Your task to perform on an android device: toggle data saver in the chrome app Image 0: 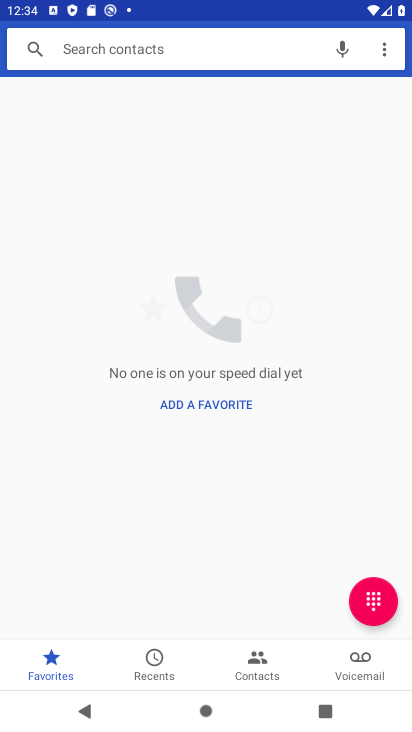
Step 0: press home button
Your task to perform on an android device: toggle data saver in the chrome app Image 1: 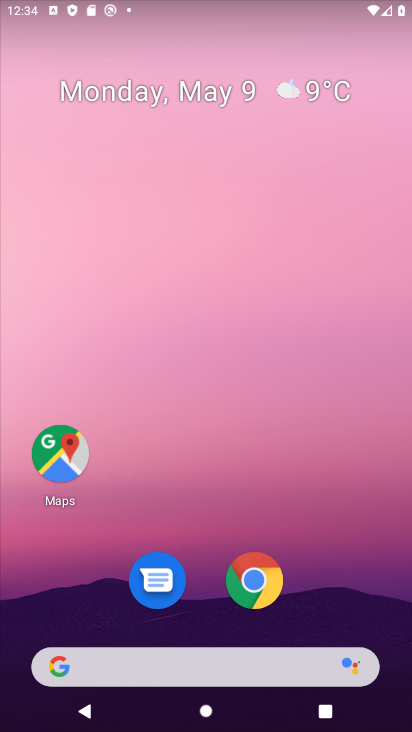
Step 1: click (272, 577)
Your task to perform on an android device: toggle data saver in the chrome app Image 2: 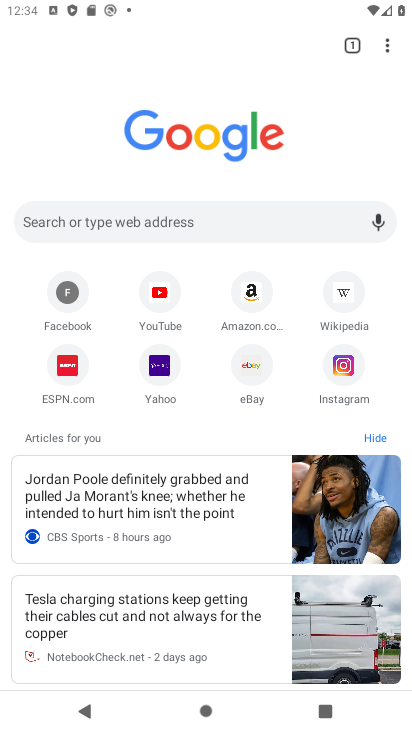
Step 2: click (385, 39)
Your task to perform on an android device: toggle data saver in the chrome app Image 3: 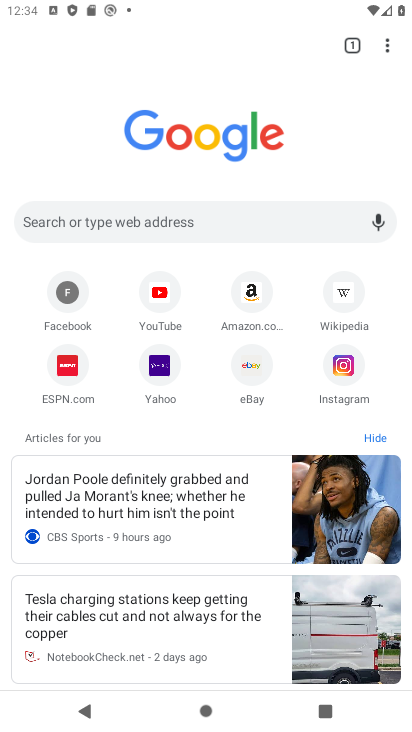
Step 3: click (391, 34)
Your task to perform on an android device: toggle data saver in the chrome app Image 4: 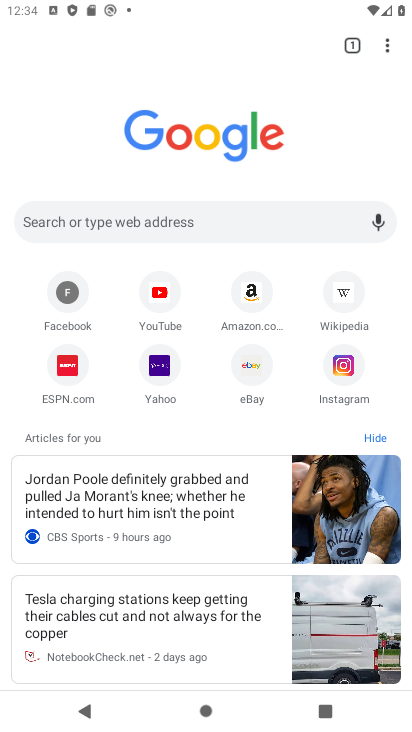
Step 4: click (392, 41)
Your task to perform on an android device: toggle data saver in the chrome app Image 5: 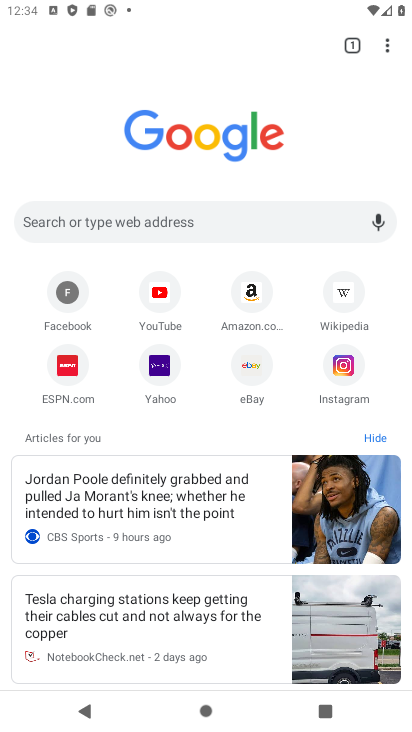
Step 5: click (389, 44)
Your task to perform on an android device: toggle data saver in the chrome app Image 6: 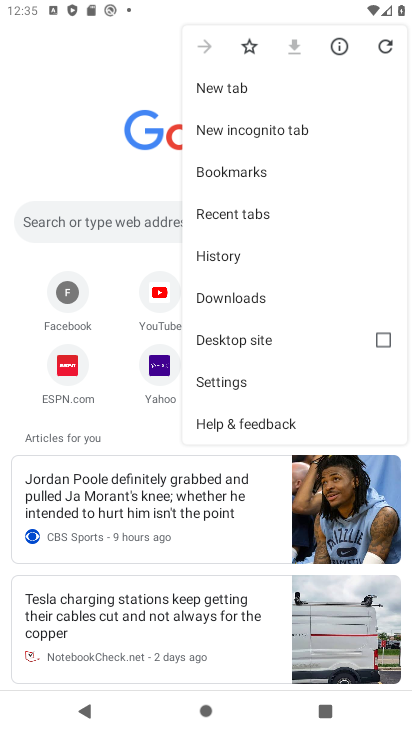
Step 6: click (249, 383)
Your task to perform on an android device: toggle data saver in the chrome app Image 7: 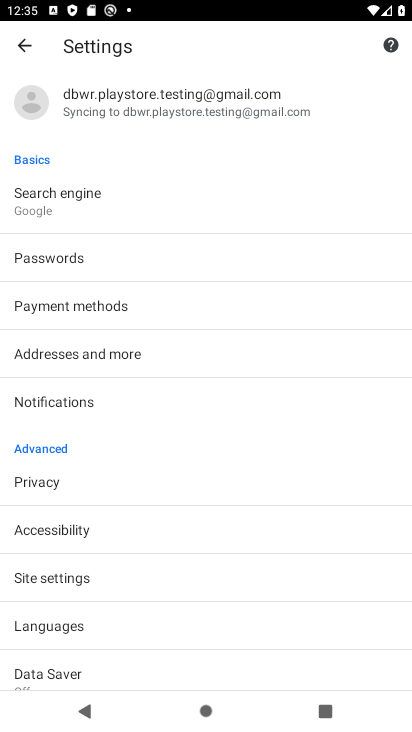
Step 7: click (112, 664)
Your task to perform on an android device: toggle data saver in the chrome app Image 8: 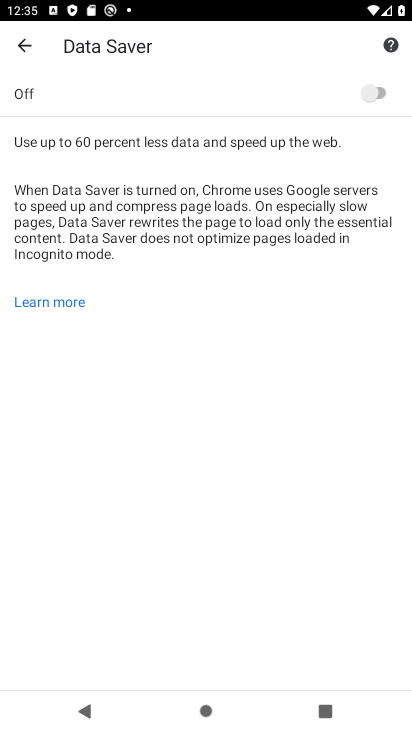
Step 8: click (377, 85)
Your task to perform on an android device: toggle data saver in the chrome app Image 9: 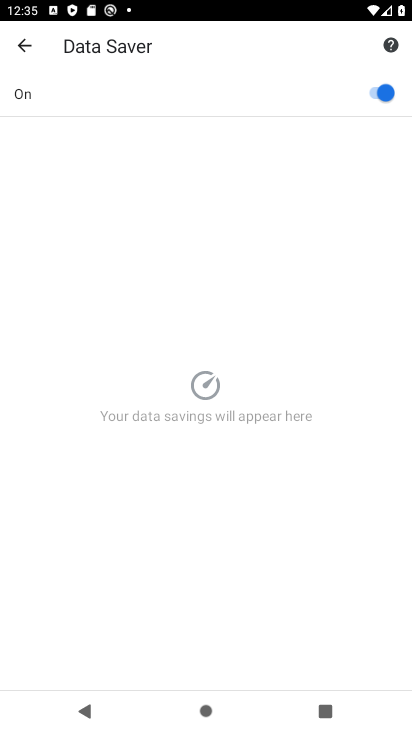
Step 9: task complete